Your task to perform on an android device: Is it going to rain today? Image 0: 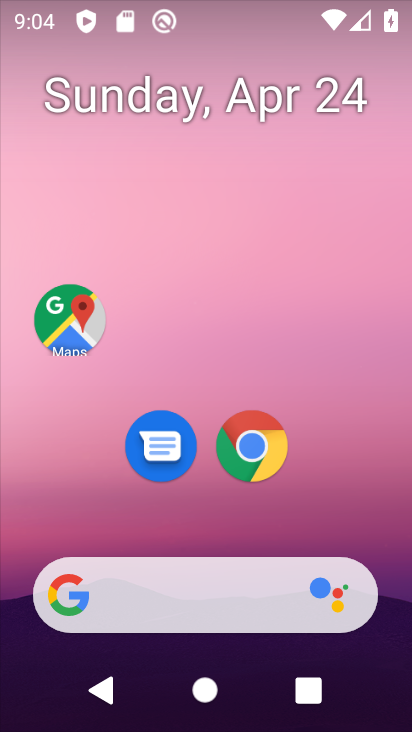
Step 0: drag from (178, 601) to (319, 50)
Your task to perform on an android device: Is it going to rain today? Image 1: 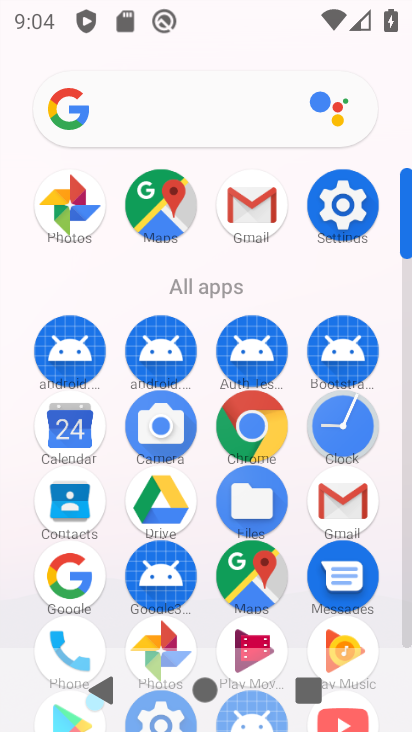
Step 1: click (78, 580)
Your task to perform on an android device: Is it going to rain today? Image 2: 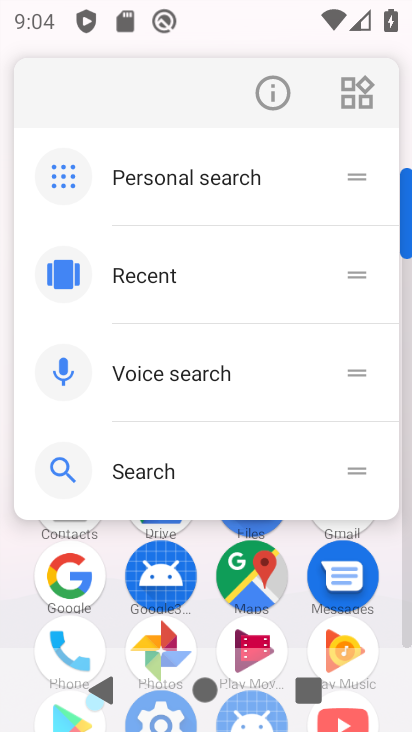
Step 2: click (75, 576)
Your task to perform on an android device: Is it going to rain today? Image 3: 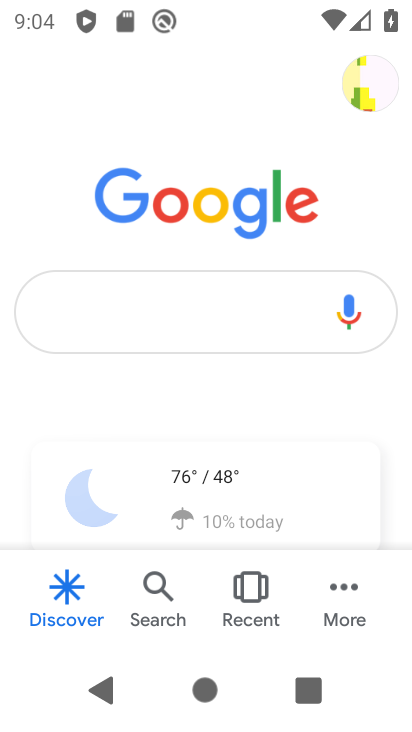
Step 3: click (212, 509)
Your task to perform on an android device: Is it going to rain today? Image 4: 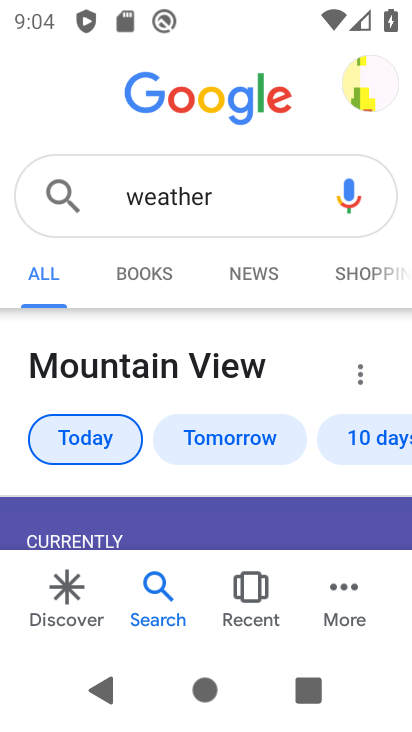
Step 4: task complete